Your task to perform on an android device: Show me popular videos on Youtube Image 0: 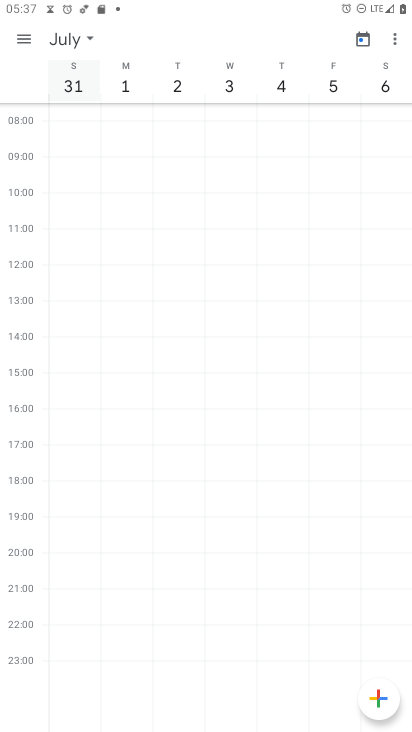
Step 0: press home button
Your task to perform on an android device: Show me popular videos on Youtube Image 1: 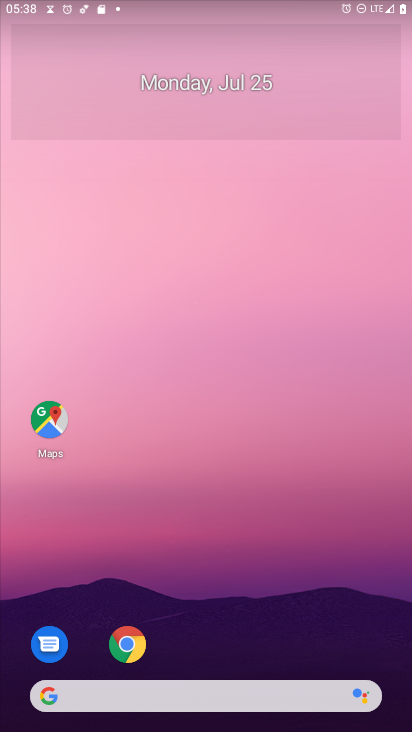
Step 1: drag from (266, 638) to (304, 225)
Your task to perform on an android device: Show me popular videos on Youtube Image 2: 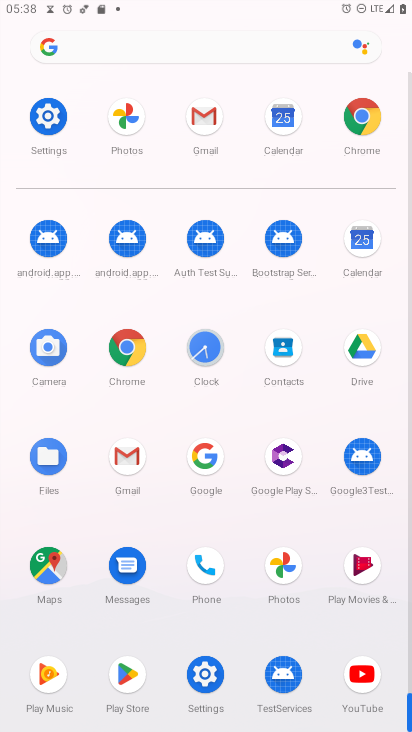
Step 2: click (354, 676)
Your task to perform on an android device: Show me popular videos on Youtube Image 3: 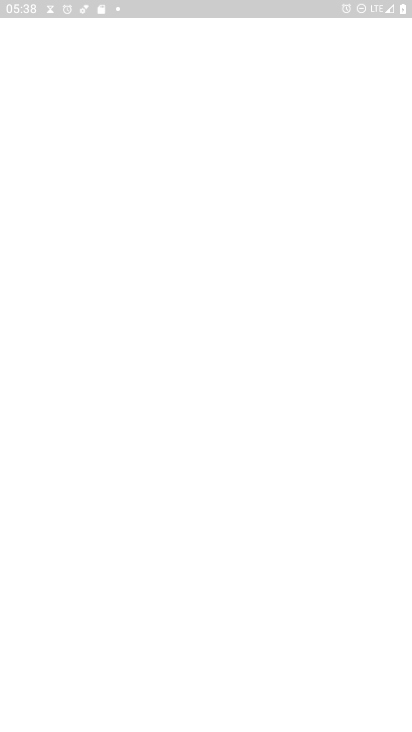
Step 3: click (354, 676)
Your task to perform on an android device: Show me popular videos on Youtube Image 4: 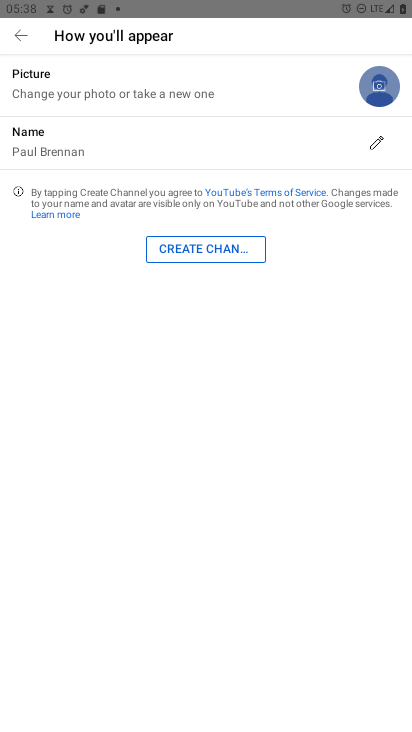
Step 4: click (21, 34)
Your task to perform on an android device: Show me popular videos on Youtube Image 5: 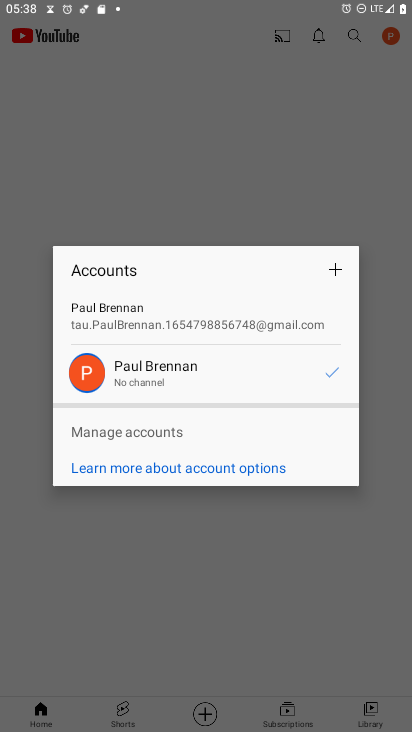
Step 5: click (134, 382)
Your task to perform on an android device: Show me popular videos on Youtube Image 6: 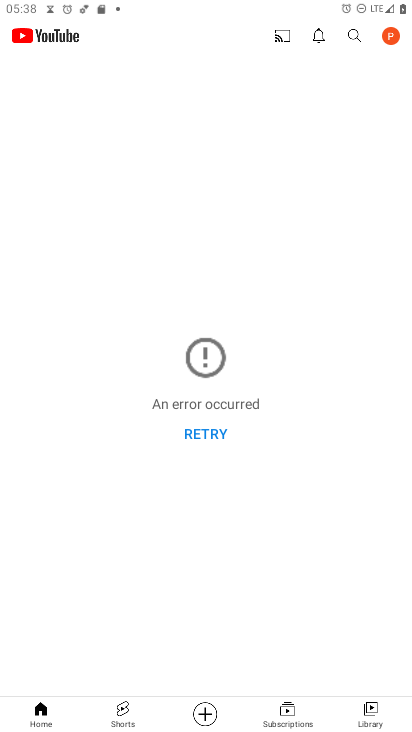
Step 6: click (205, 431)
Your task to perform on an android device: Show me popular videos on Youtube Image 7: 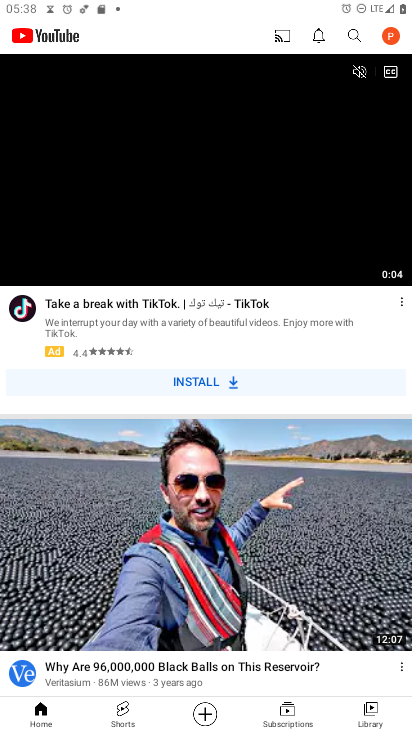
Step 7: drag from (295, 114) to (258, 559)
Your task to perform on an android device: Show me popular videos on Youtube Image 8: 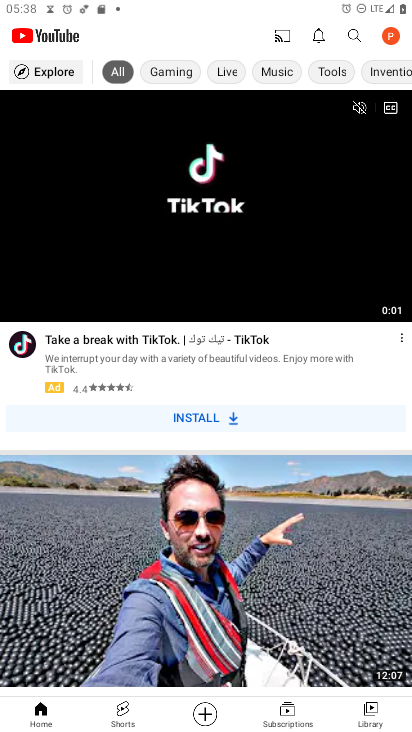
Step 8: click (62, 72)
Your task to perform on an android device: Show me popular videos on Youtube Image 9: 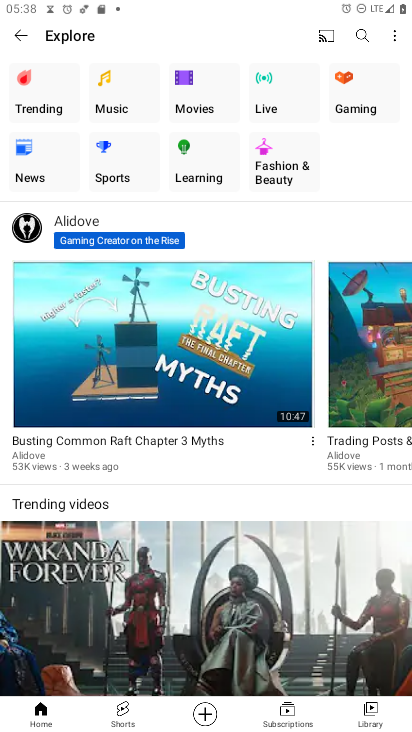
Step 9: click (24, 104)
Your task to perform on an android device: Show me popular videos on Youtube Image 10: 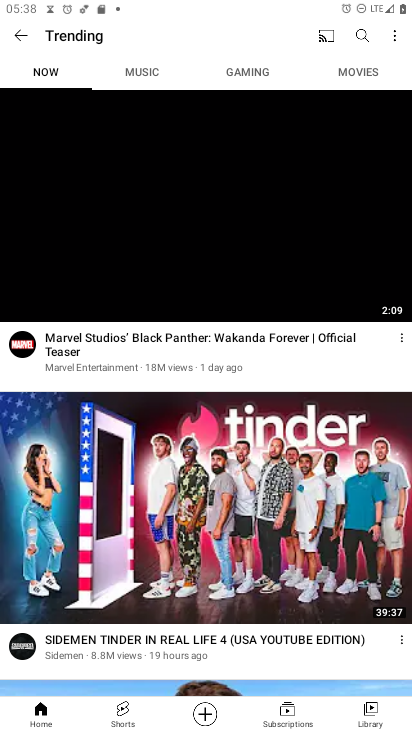
Step 10: task complete